Your task to perform on an android device: Do I have any events today? Image 0: 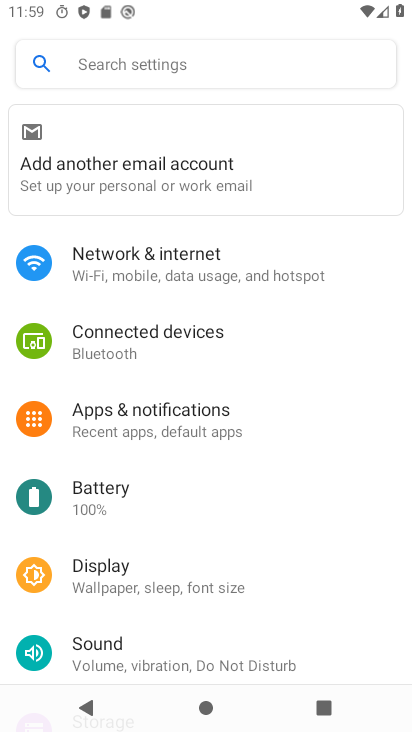
Step 0: press home button
Your task to perform on an android device: Do I have any events today? Image 1: 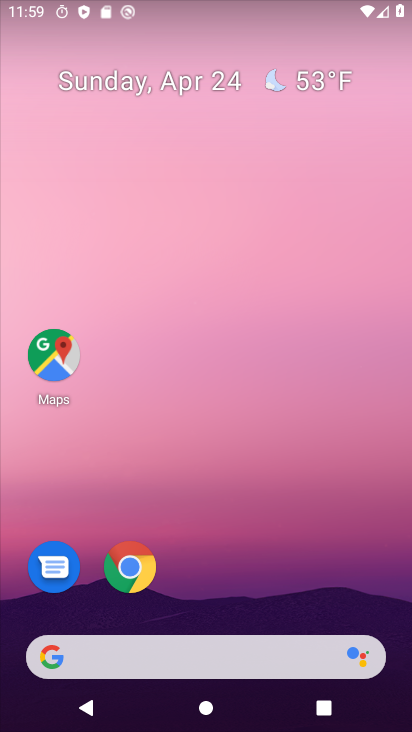
Step 1: drag from (284, 509) to (348, 116)
Your task to perform on an android device: Do I have any events today? Image 2: 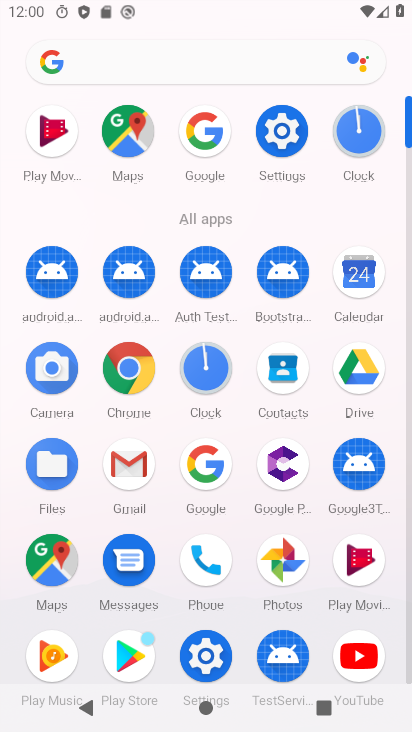
Step 2: click (346, 265)
Your task to perform on an android device: Do I have any events today? Image 3: 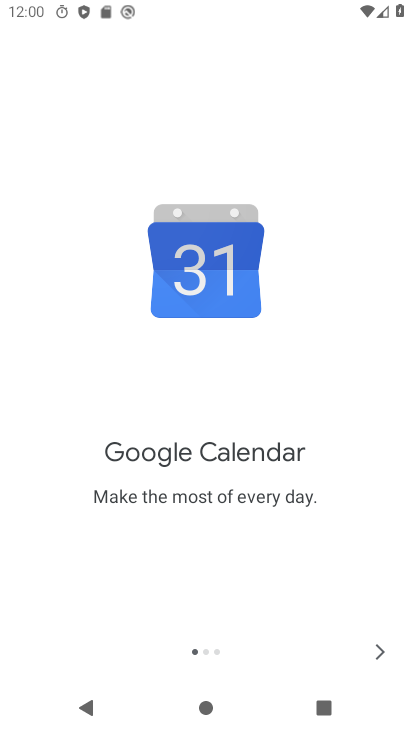
Step 3: click (379, 639)
Your task to perform on an android device: Do I have any events today? Image 4: 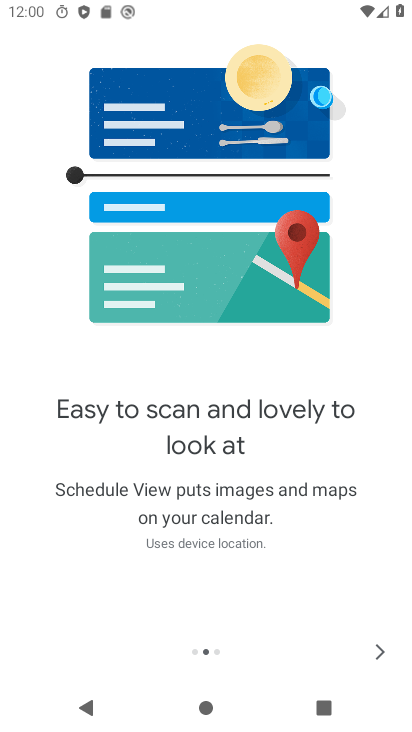
Step 4: click (379, 639)
Your task to perform on an android device: Do I have any events today? Image 5: 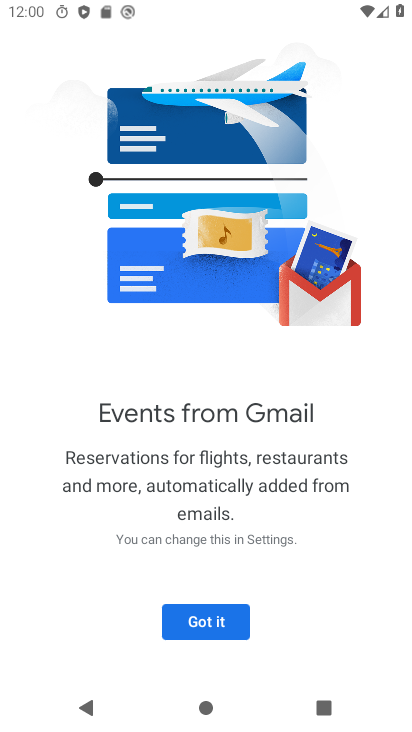
Step 5: click (233, 611)
Your task to perform on an android device: Do I have any events today? Image 6: 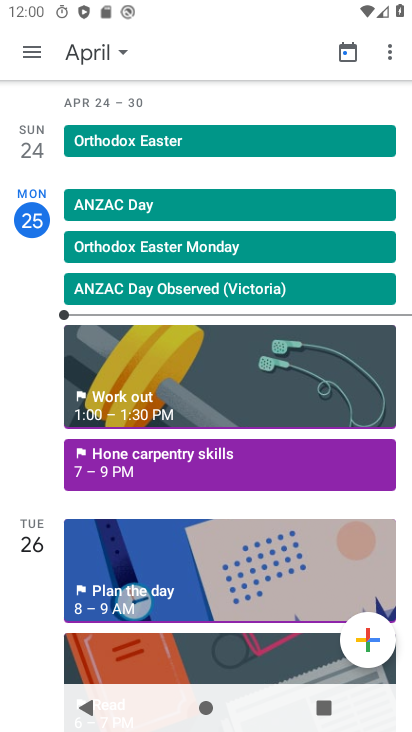
Step 6: task complete